Your task to perform on an android device: turn off smart reply in the gmail app Image 0: 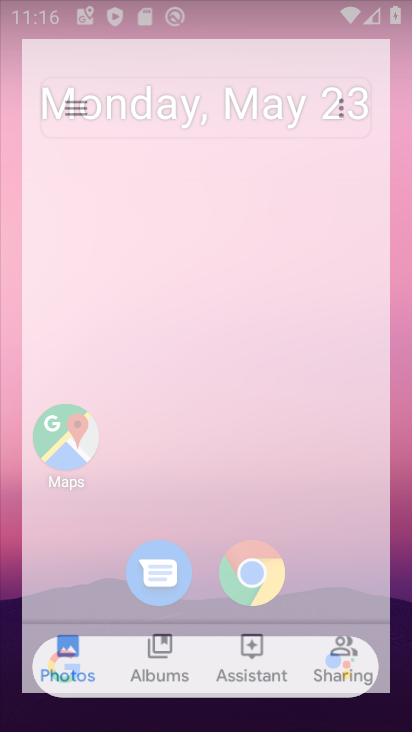
Step 0: drag from (370, 601) to (362, 287)
Your task to perform on an android device: turn off smart reply in the gmail app Image 1: 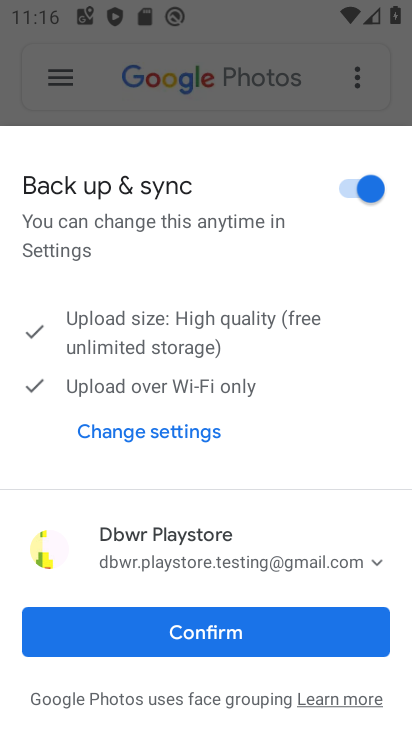
Step 1: press home button
Your task to perform on an android device: turn off smart reply in the gmail app Image 2: 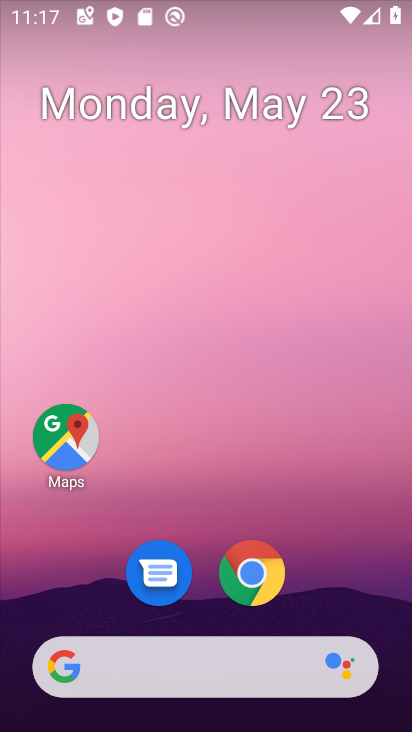
Step 2: drag from (381, 614) to (374, 257)
Your task to perform on an android device: turn off smart reply in the gmail app Image 3: 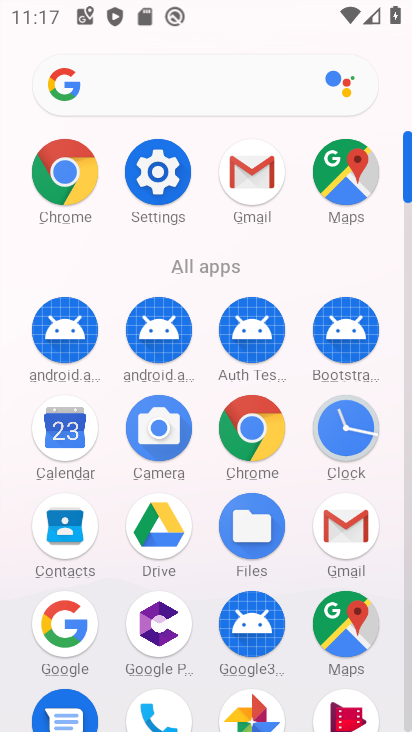
Step 3: click (343, 545)
Your task to perform on an android device: turn off smart reply in the gmail app Image 4: 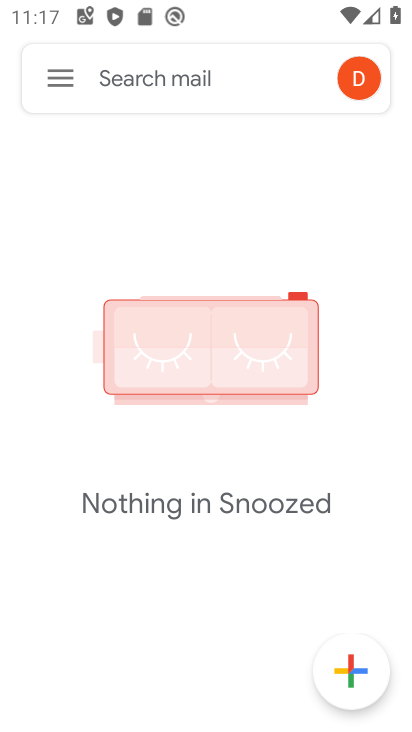
Step 4: click (55, 71)
Your task to perform on an android device: turn off smart reply in the gmail app Image 5: 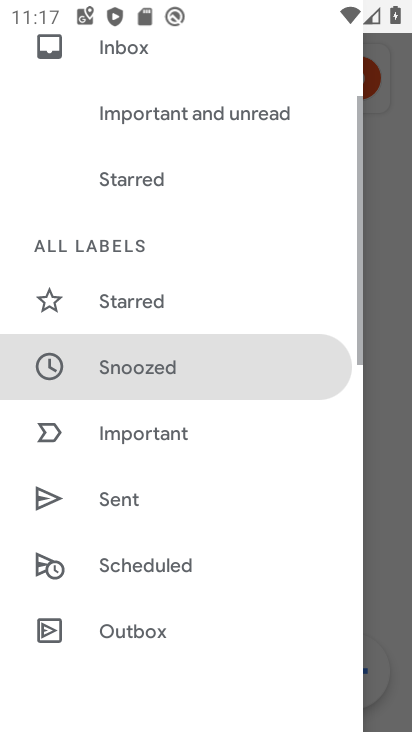
Step 5: drag from (249, 548) to (235, 341)
Your task to perform on an android device: turn off smart reply in the gmail app Image 6: 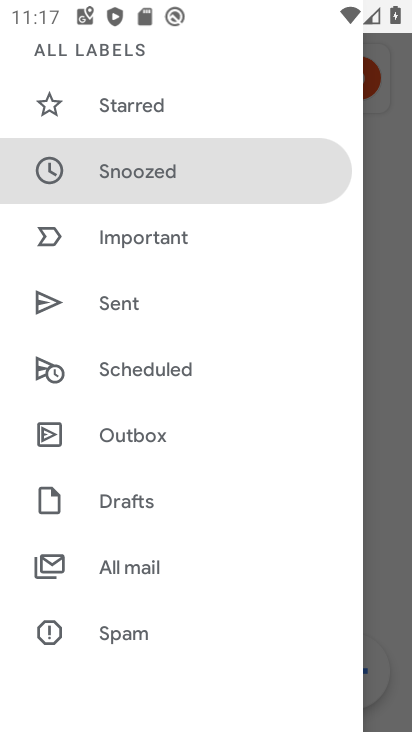
Step 6: drag from (263, 555) to (243, 337)
Your task to perform on an android device: turn off smart reply in the gmail app Image 7: 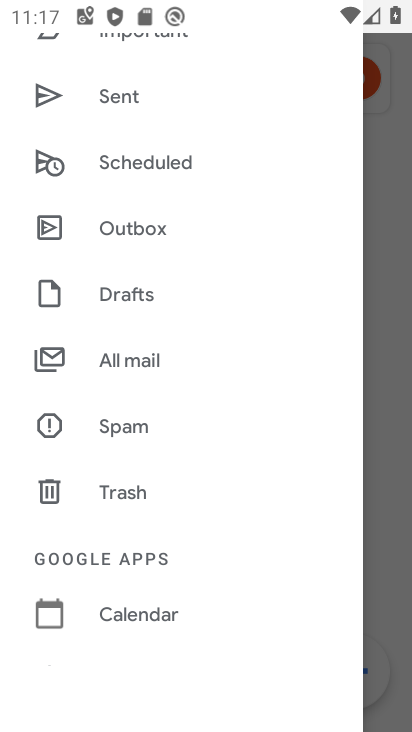
Step 7: drag from (269, 160) to (253, 353)
Your task to perform on an android device: turn off smart reply in the gmail app Image 8: 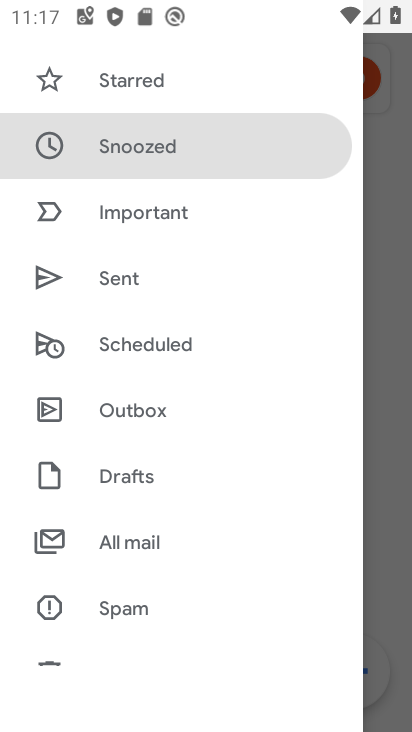
Step 8: drag from (257, 576) to (239, 339)
Your task to perform on an android device: turn off smart reply in the gmail app Image 9: 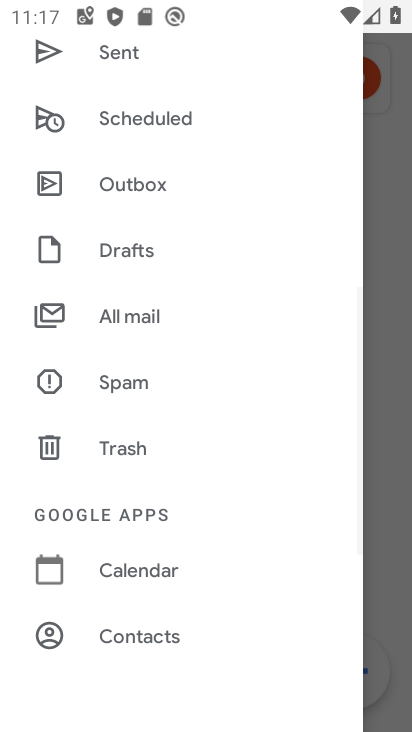
Step 9: drag from (231, 572) to (226, 379)
Your task to perform on an android device: turn off smart reply in the gmail app Image 10: 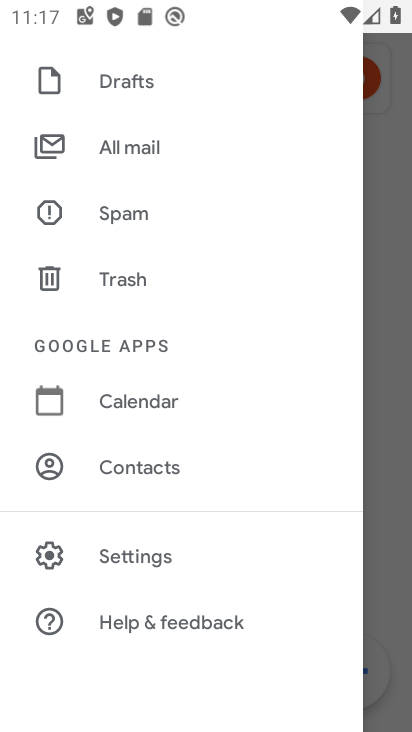
Step 10: click (174, 565)
Your task to perform on an android device: turn off smart reply in the gmail app Image 11: 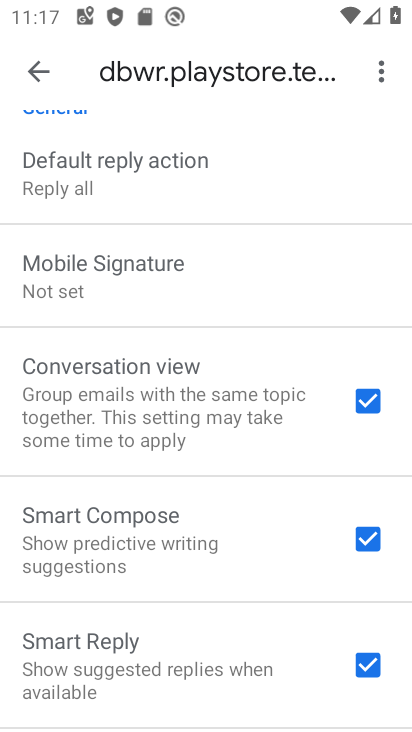
Step 11: drag from (178, 614) to (208, 471)
Your task to perform on an android device: turn off smart reply in the gmail app Image 12: 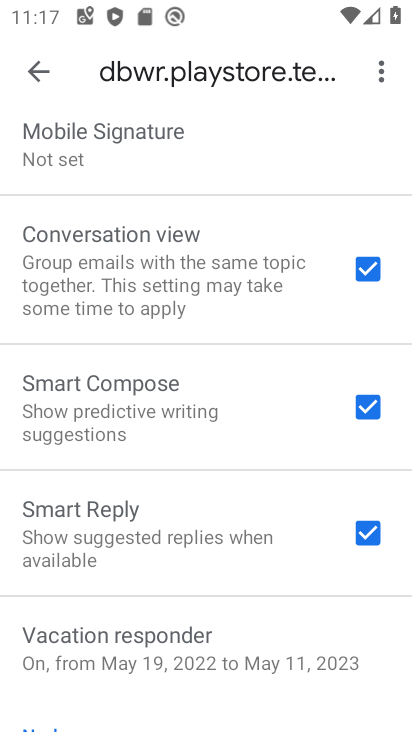
Step 12: drag from (249, 595) to (258, 494)
Your task to perform on an android device: turn off smart reply in the gmail app Image 13: 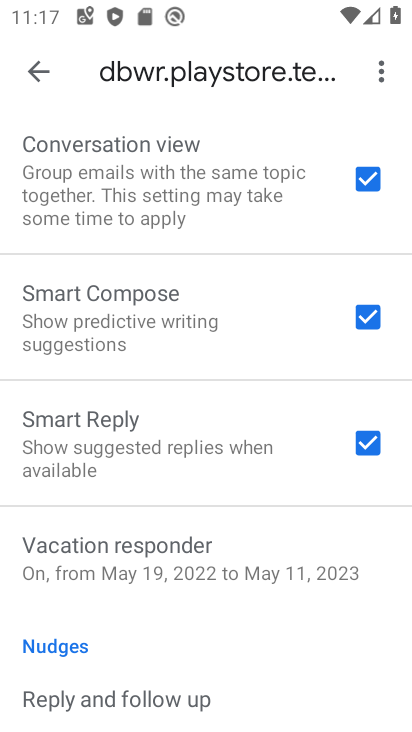
Step 13: drag from (255, 608) to (249, 503)
Your task to perform on an android device: turn off smart reply in the gmail app Image 14: 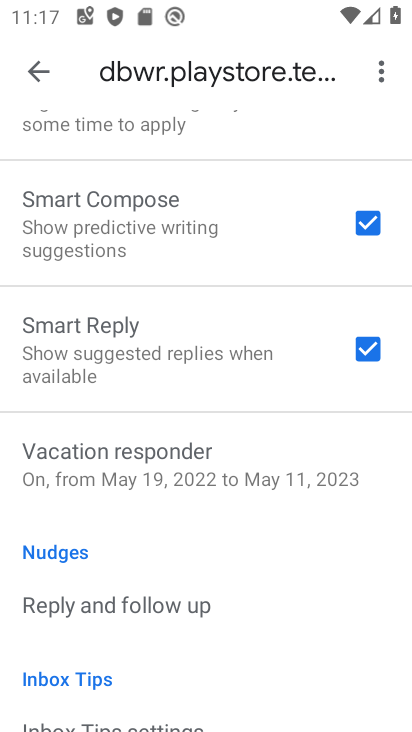
Step 14: click (362, 350)
Your task to perform on an android device: turn off smart reply in the gmail app Image 15: 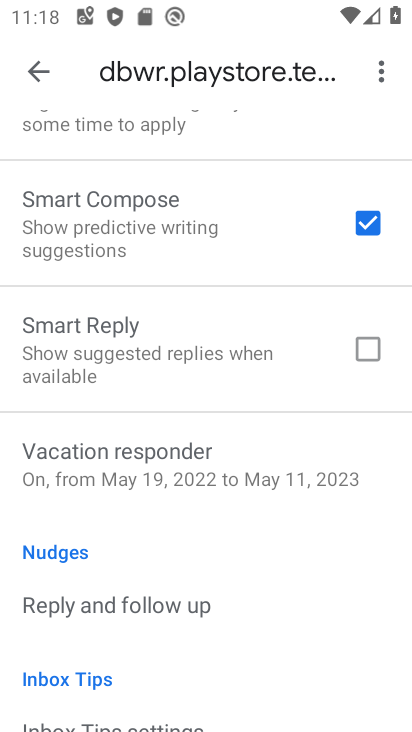
Step 15: task complete